Your task to perform on an android device: toggle sleep mode Image 0: 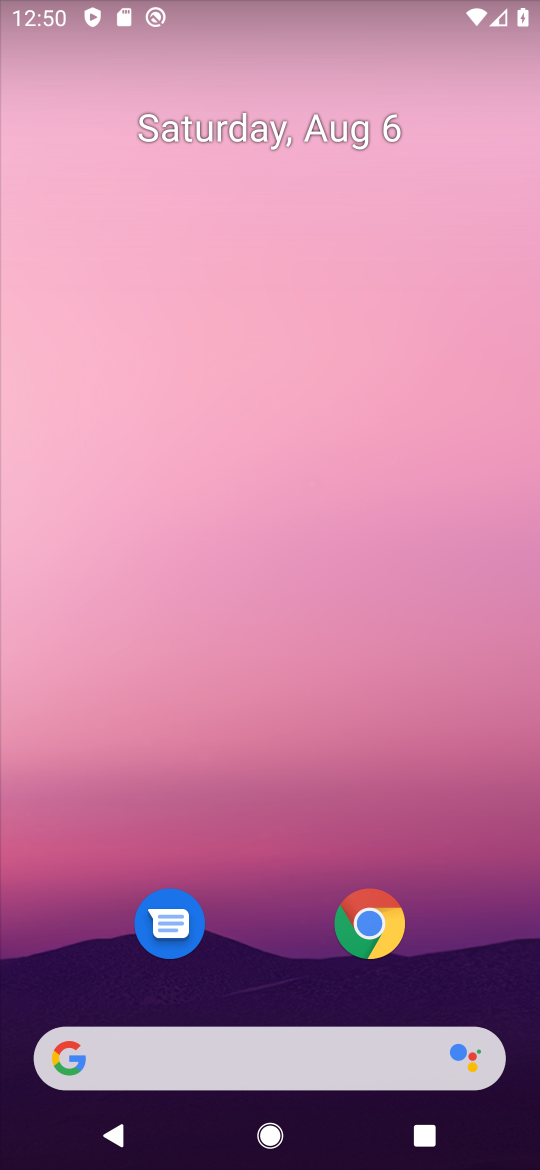
Step 0: drag from (292, 779) to (318, 401)
Your task to perform on an android device: toggle sleep mode Image 1: 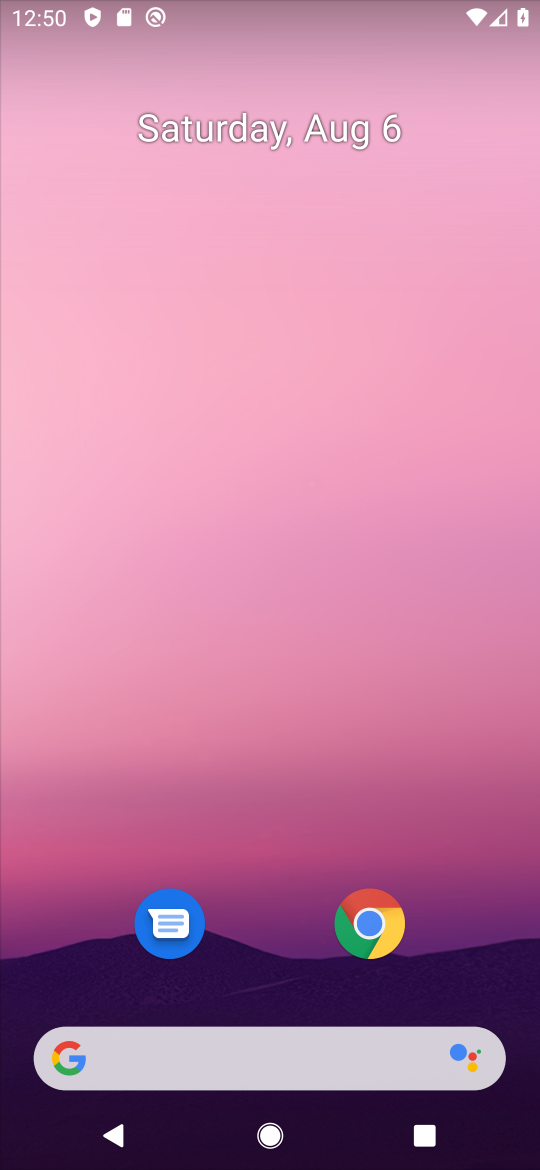
Step 1: click (340, 360)
Your task to perform on an android device: toggle sleep mode Image 2: 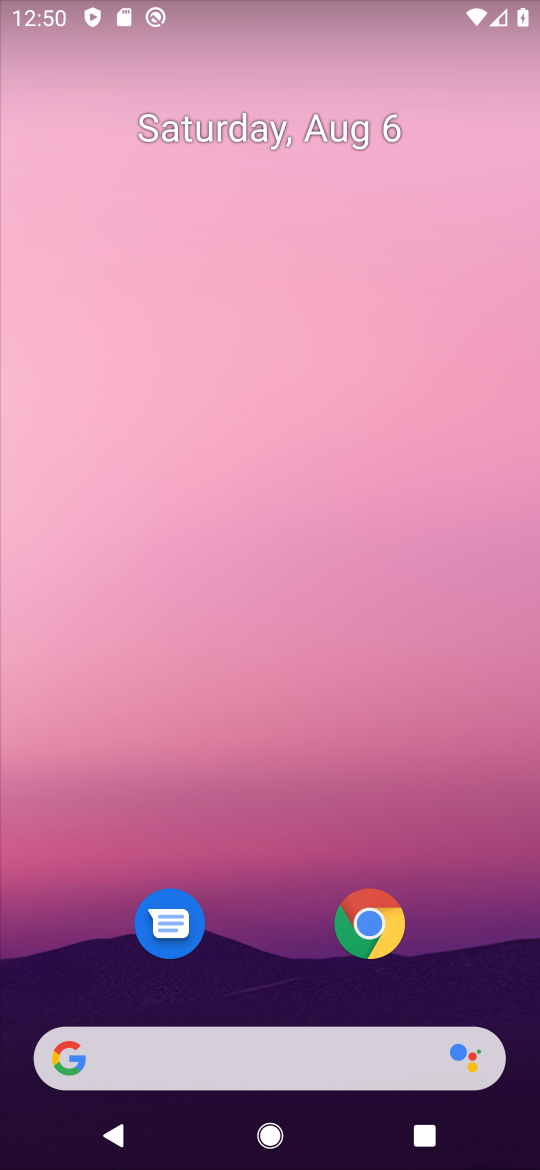
Step 2: drag from (286, 448) to (323, 172)
Your task to perform on an android device: toggle sleep mode Image 3: 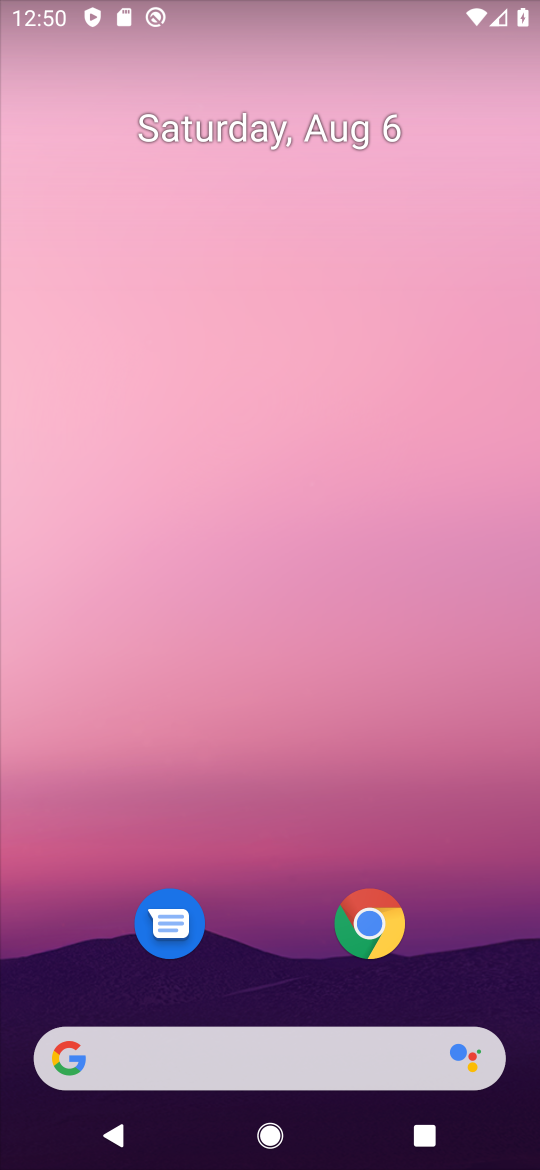
Step 3: drag from (291, 1000) to (334, 373)
Your task to perform on an android device: toggle sleep mode Image 4: 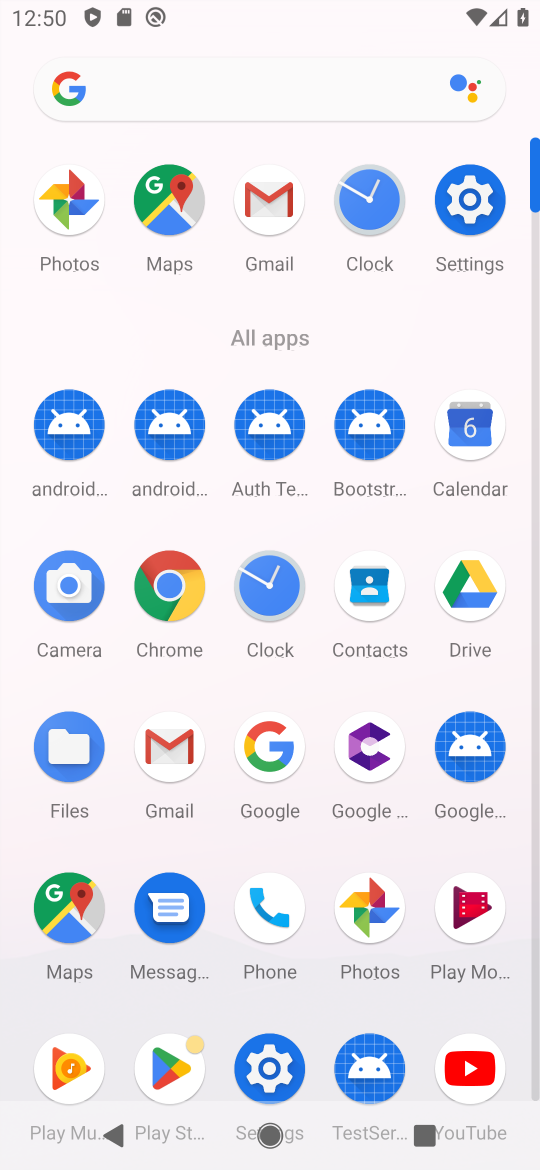
Step 4: click (265, 1043)
Your task to perform on an android device: toggle sleep mode Image 5: 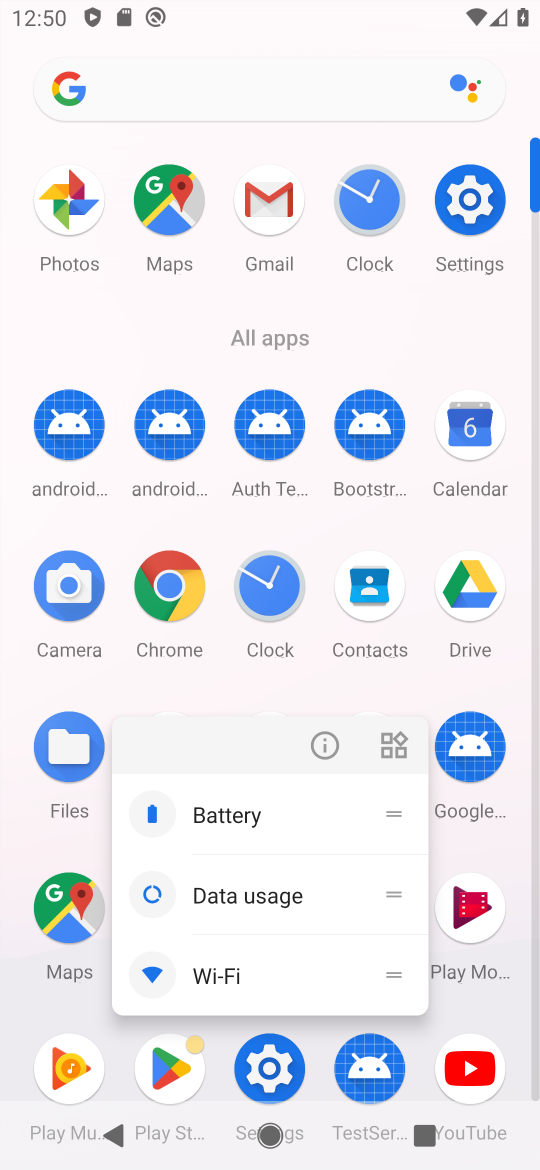
Step 5: click (321, 741)
Your task to perform on an android device: toggle sleep mode Image 6: 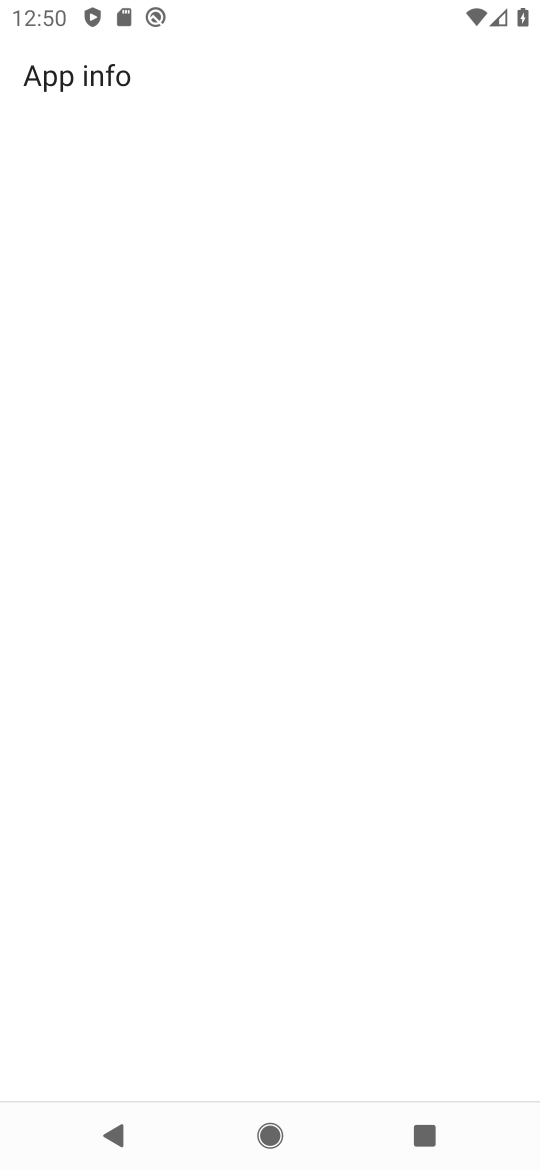
Step 6: drag from (229, 735) to (229, 327)
Your task to perform on an android device: toggle sleep mode Image 7: 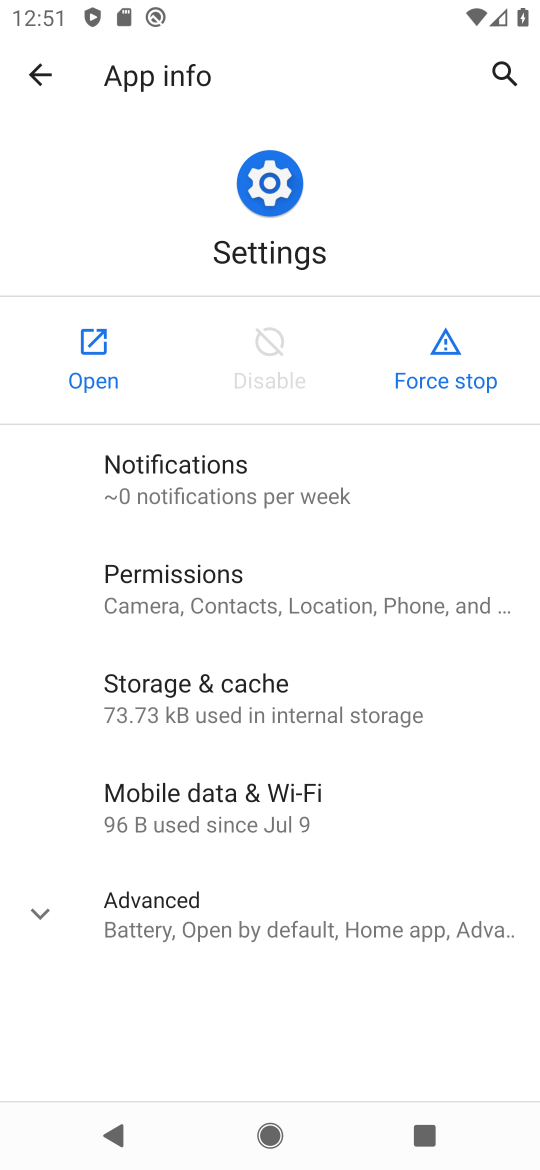
Step 7: click (86, 352)
Your task to perform on an android device: toggle sleep mode Image 8: 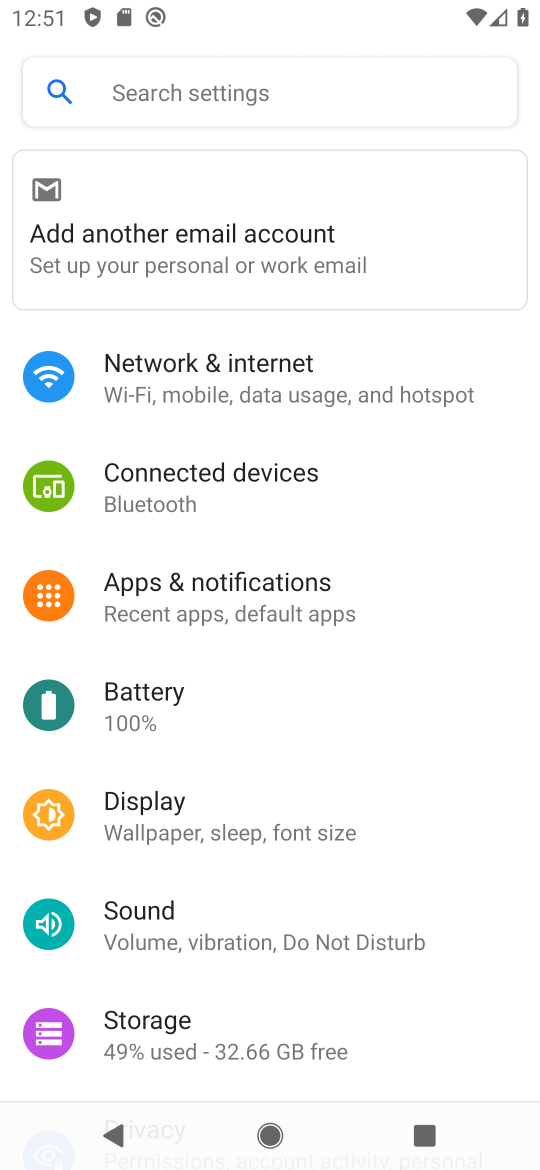
Step 8: click (175, 825)
Your task to perform on an android device: toggle sleep mode Image 9: 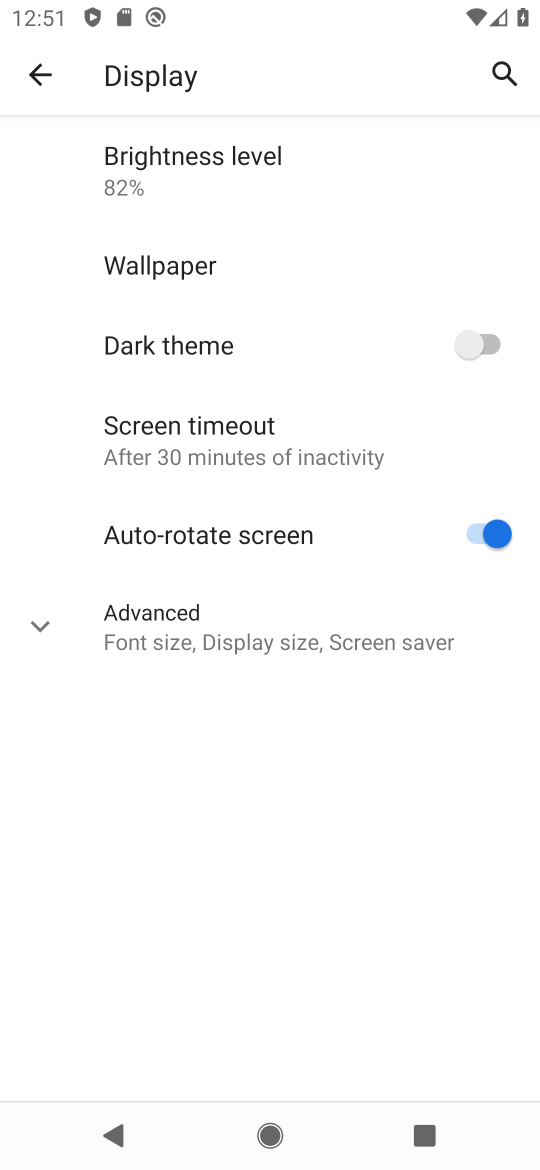
Step 9: drag from (331, 770) to (319, 312)
Your task to perform on an android device: toggle sleep mode Image 10: 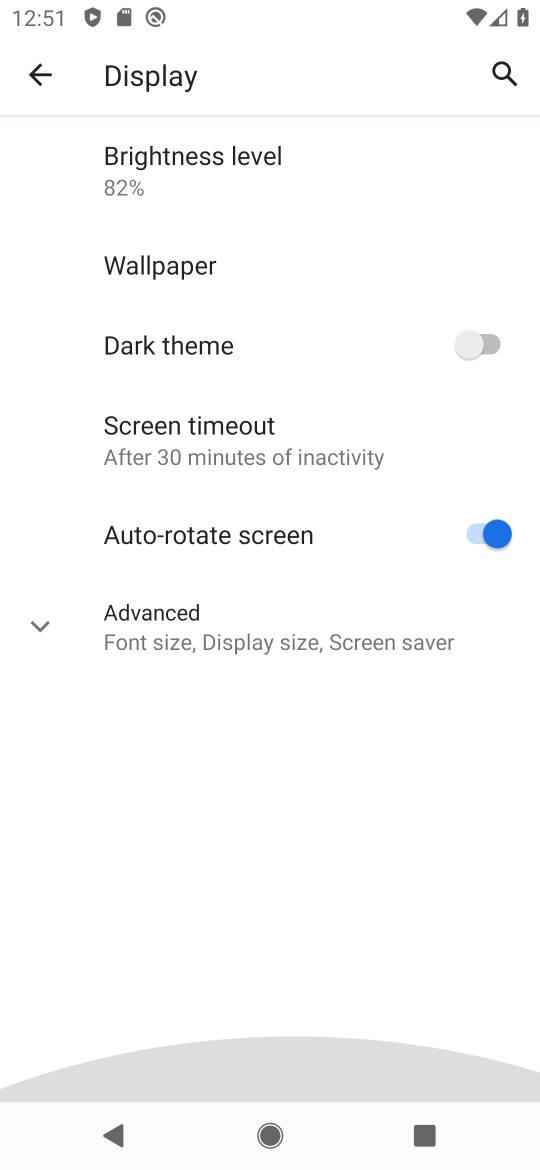
Step 10: click (290, 448)
Your task to perform on an android device: toggle sleep mode Image 11: 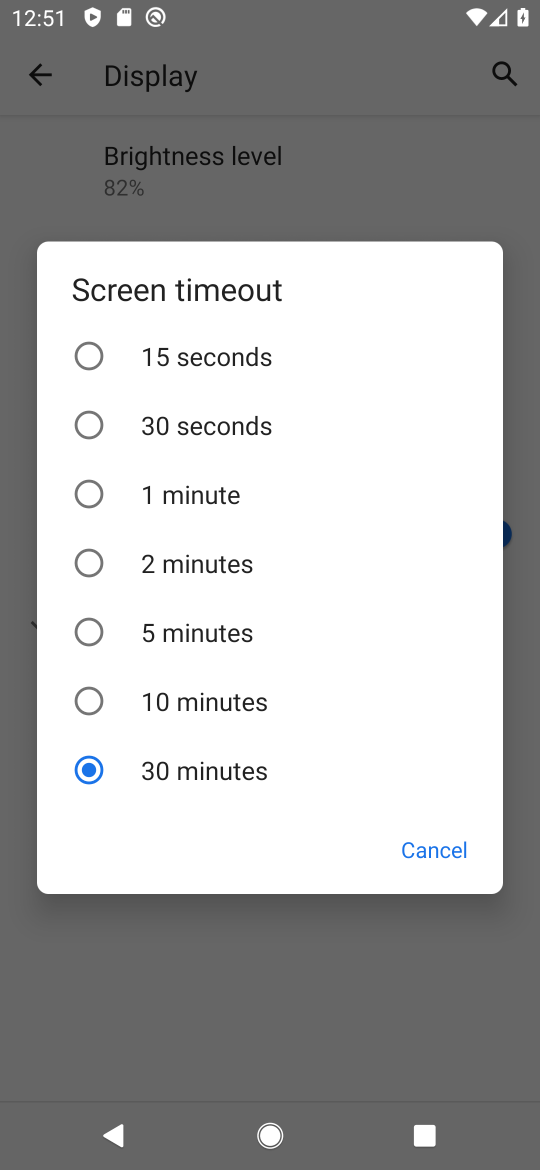
Step 11: drag from (324, 979) to (312, 500)
Your task to perform on an android device: toggle sleep mode Image 12: 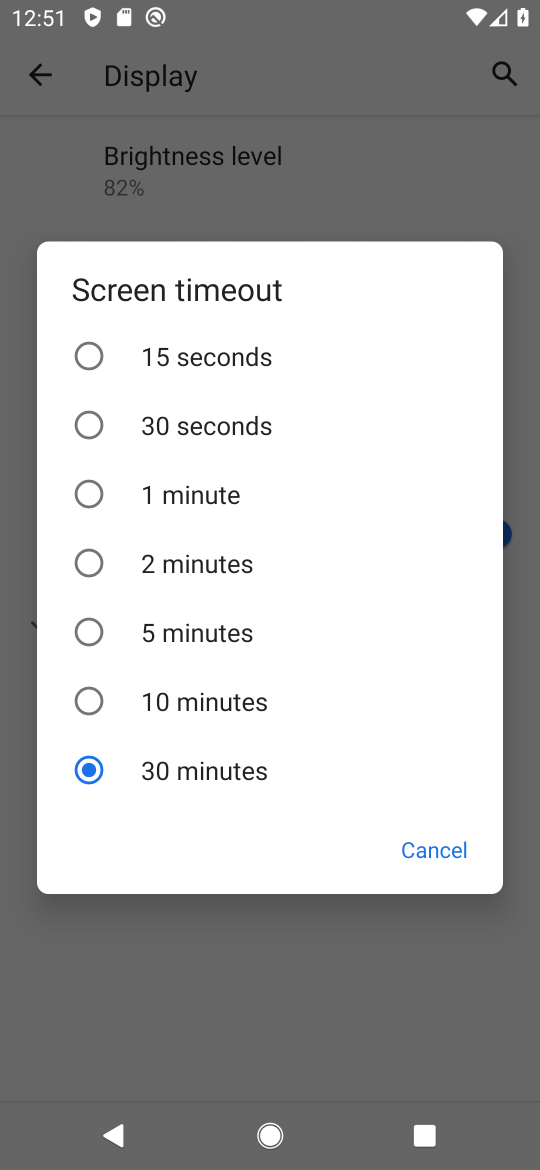
Step 12: click (194, 348)
Your task to perform on an android device: toggle sleep mode Image 13: 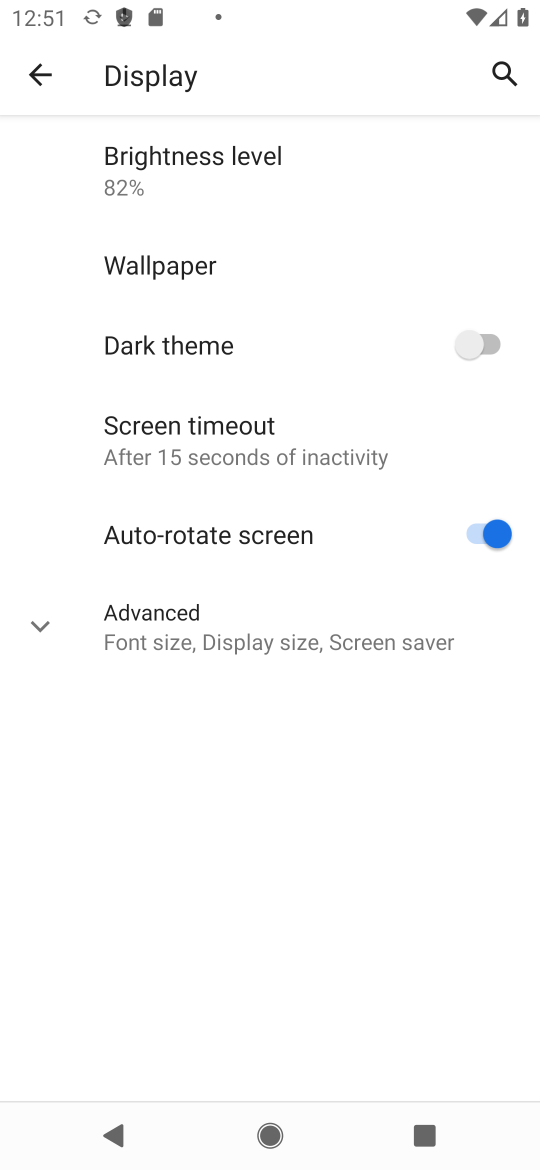
Step 13: task complete